Your task to perform on an android device: open wifi settings Image 0: 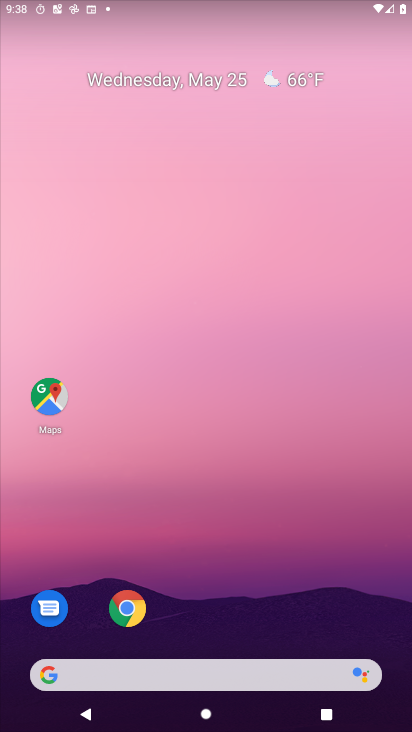
Step 0: drag from (222, 723) to (225, 209)
Your task to perform on an android device: open wifi settings Image 1: 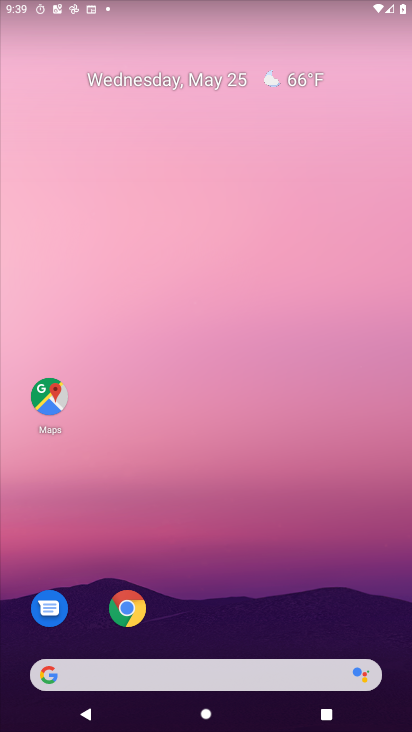
Step 1: drag from (244, 694) to (248, 224)
Your task to perform on an android device: open wifi settings Image 2: 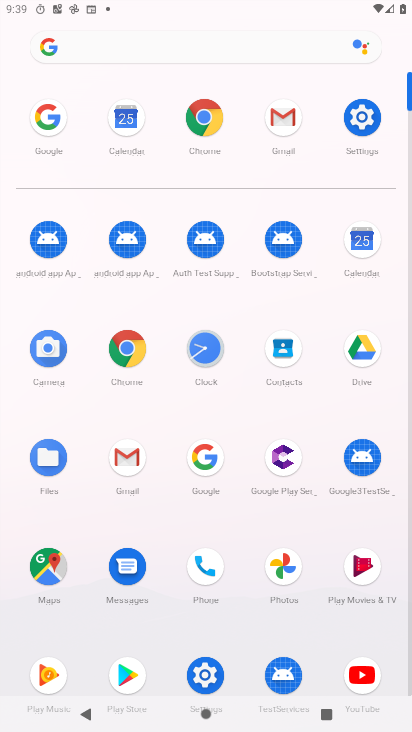
Step 2: click (363, 118)
Your task to perform on an android device: open wifi settings Image 3: 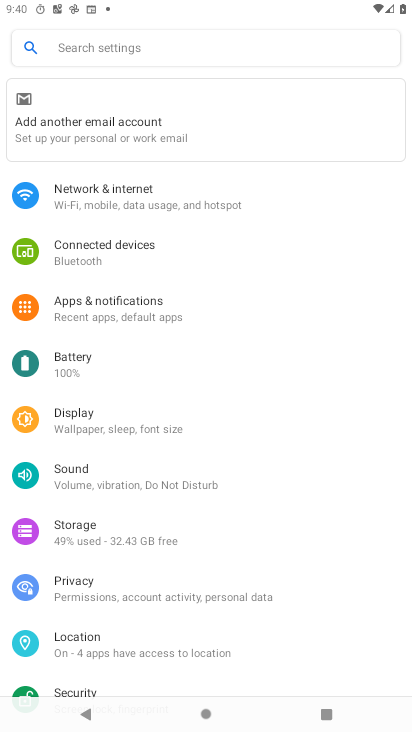
Step 3: click (107, 202)
Your task to perform on an android device: open wifi settings Image 4: 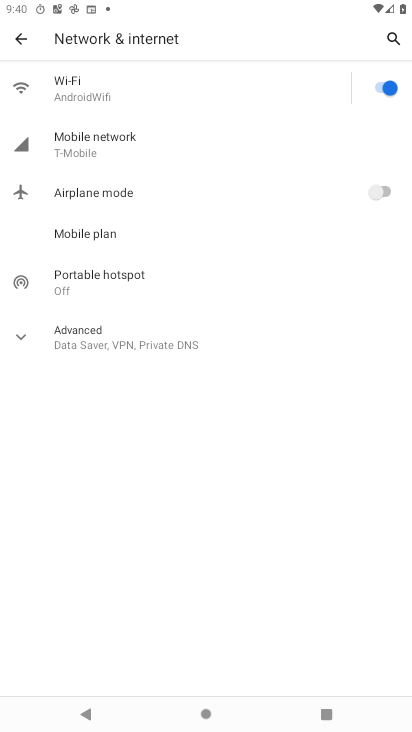
Step 4: click (78, 95)
Your task to perform on an android device: open wifi settings Image 5: 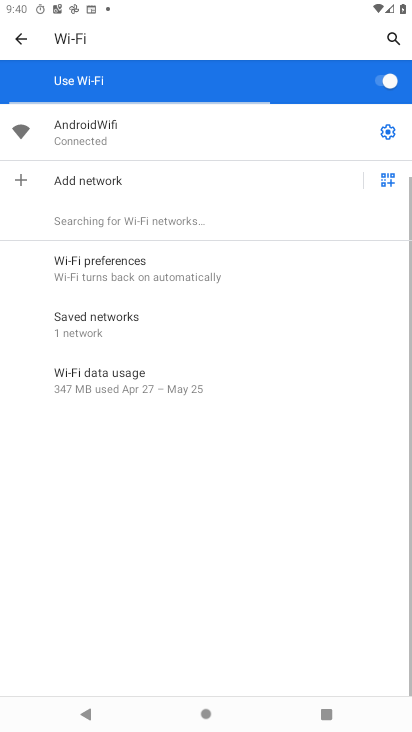
Step 5: task complete